Your task to perform on an android device: Find coffee shops on Maps Image 0: 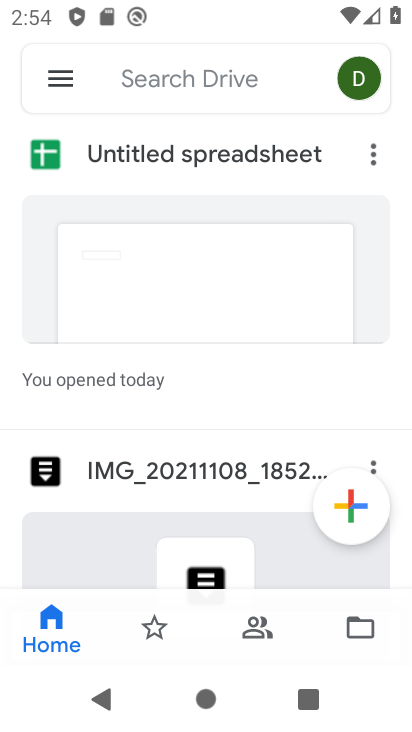
Step 0: press back button
Your task to perform on an android device: Find coffee shops on Maps Image 1: 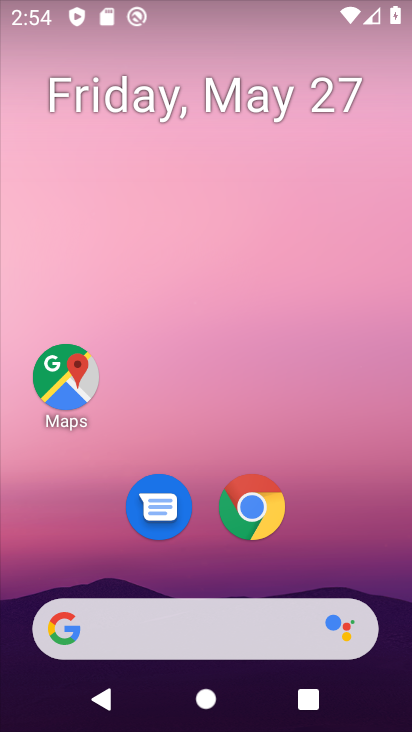
Step 1: click (63, 369)
Your task to perform on an android device: Find coffee shops on Maps Image 2: 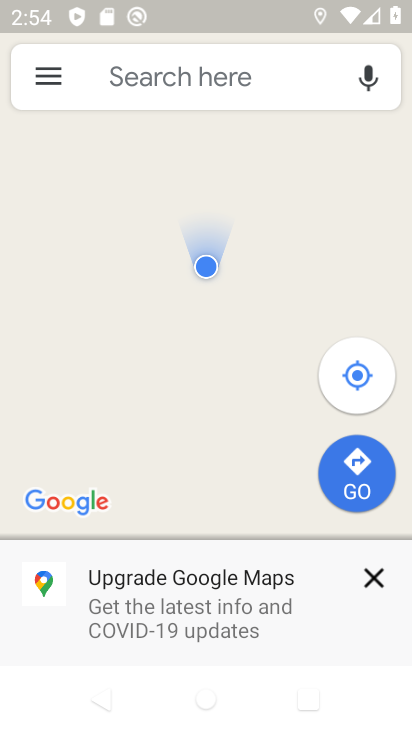
Step 2: click (142, 70)
Your task to perform on an android device: Find coffee shops on Maps Image 3: 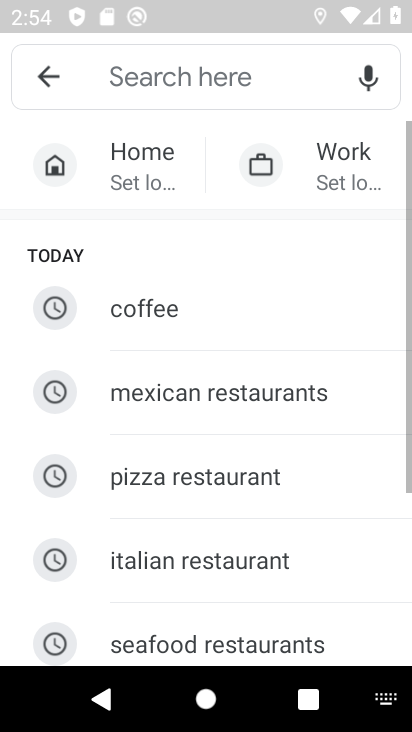
Step 3: click (164, 300)
Your task to perform on an android device: Find coffee shops on Maps Image 4: 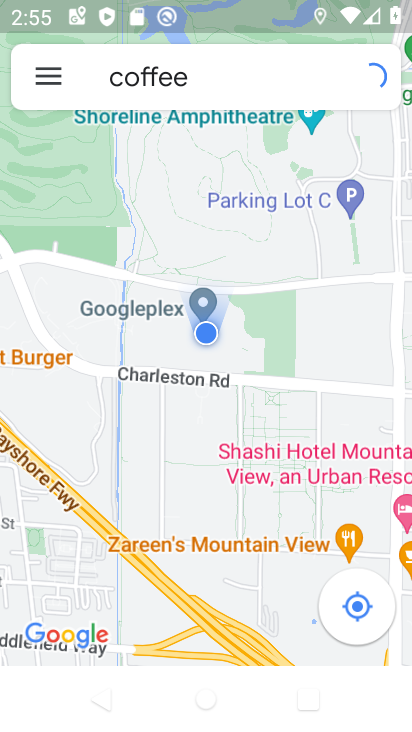
Step 4: task complete